Your task to perform on an android device: Empty the shopping cart on amazon.com. Add "razer nari" to the cart on amazon.com, then select checkout. Image 0: 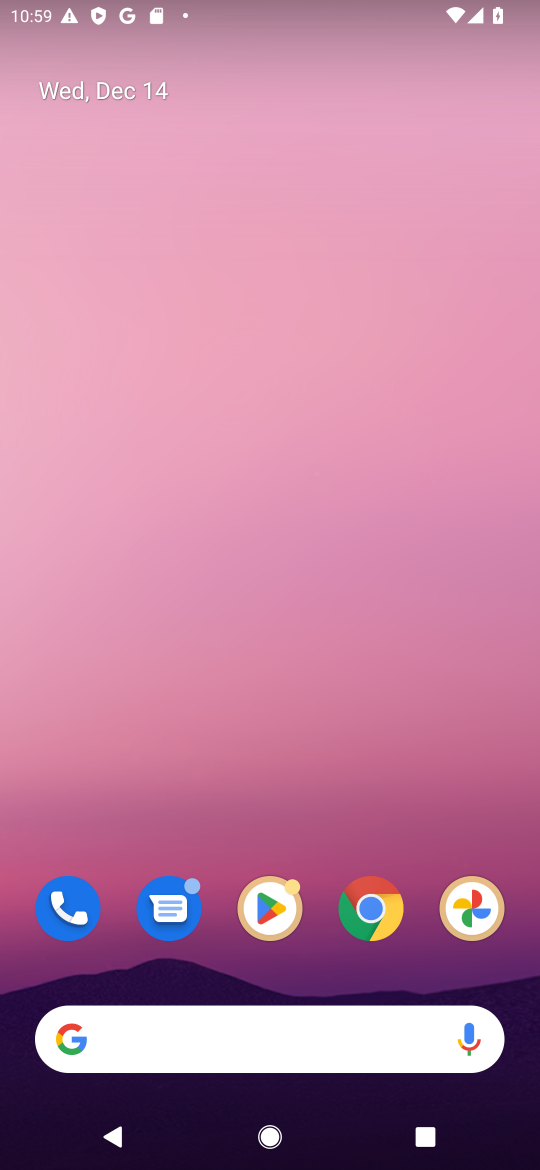
Step 0: click (390, 915)
Your task to perform on an android device: Empty the shopping cart on amazon.com. Add "razer nari" to the cart on amazon.com, then select checkout. Image 1: 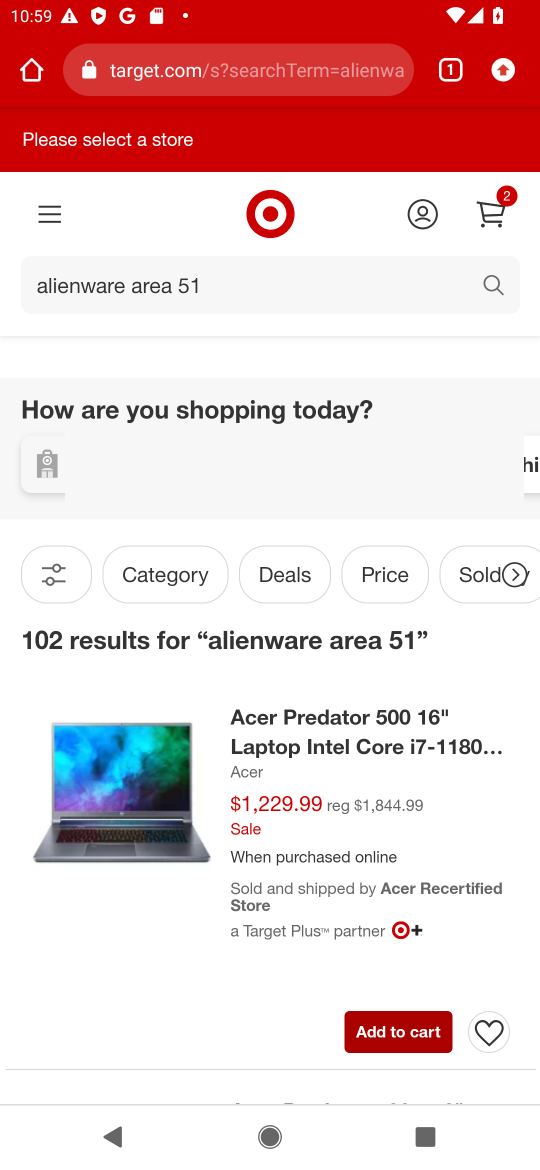
Step 1: click (283, 77)
Your task to perform on an android device: Empty the shopping cart on amazon.com. Add "razer nari" to the cart on amazon.com, then select checkout. Image 2: 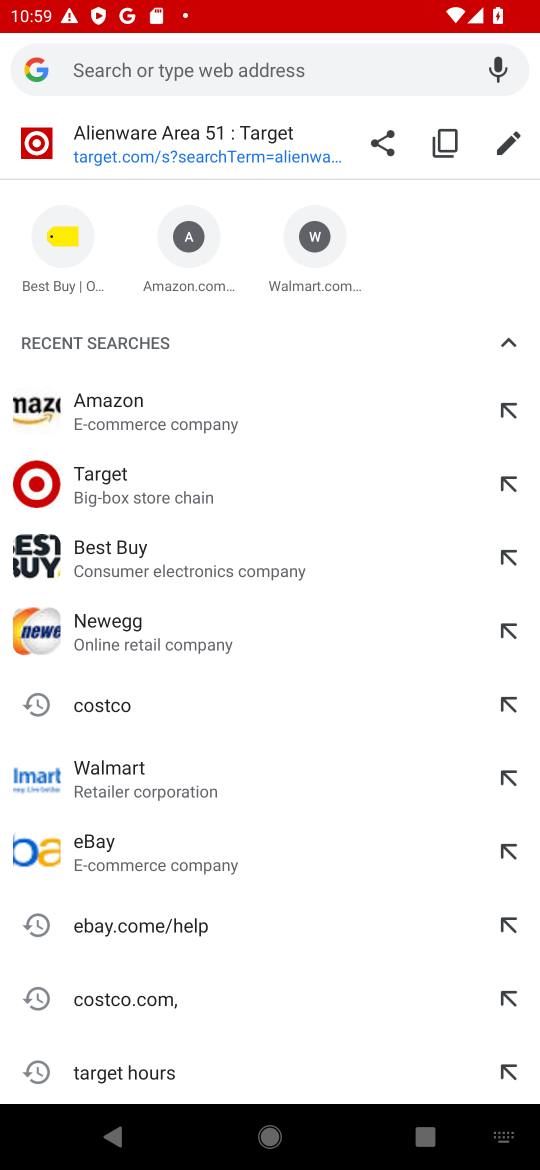
Step 2: type "amazone"
Your task to perform on an android device: Empty the shopping cart on amazon.com. Add "razer nari" to the cart on amazon.com, then select checkout. Image 3: 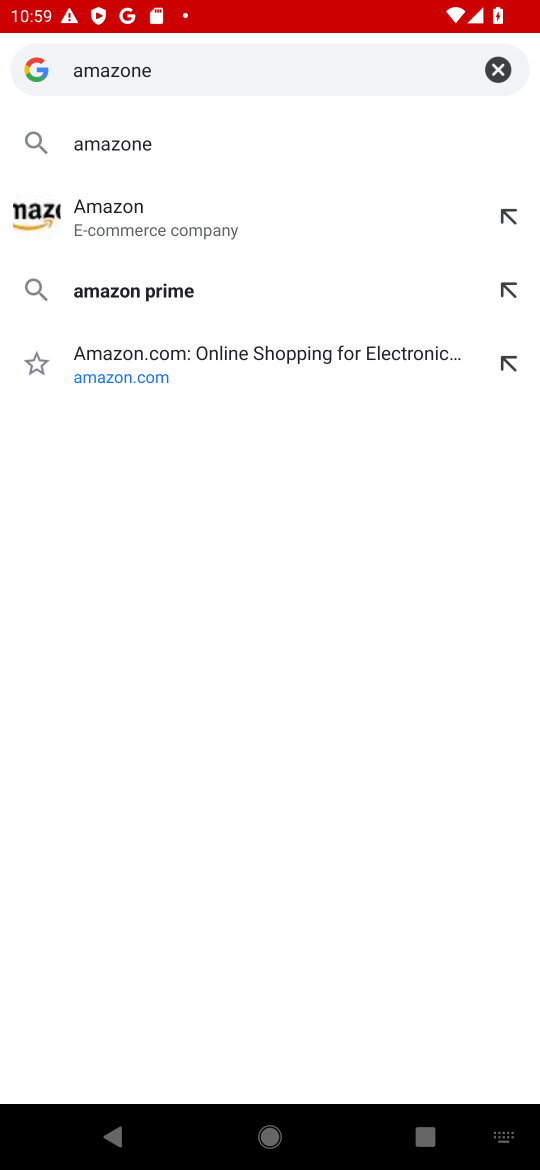
Step 3: click (120, 213)
Your task to perform on an android device: Empty the shopping cart on amazon.com. Add "razer nari" to the cart on amazon.com, then select checkout. Image 4: 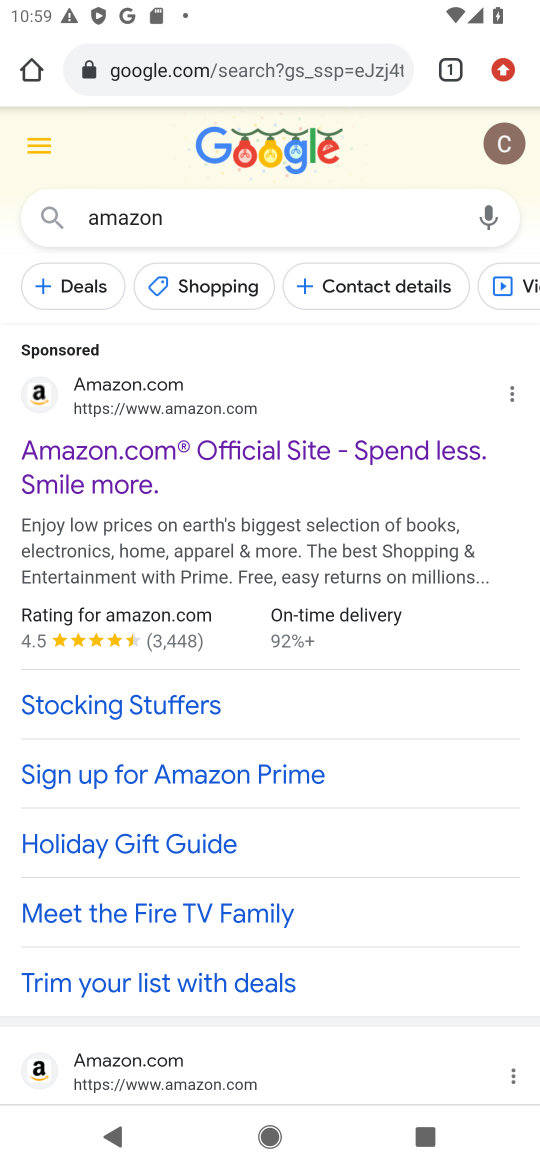
Step 4: click (80, 470)
Your task to perform on an android device: Empty the shopping cart on amazon.com. Add "razer nari" to the cart on amazon.com, then select checkout. Image 5: 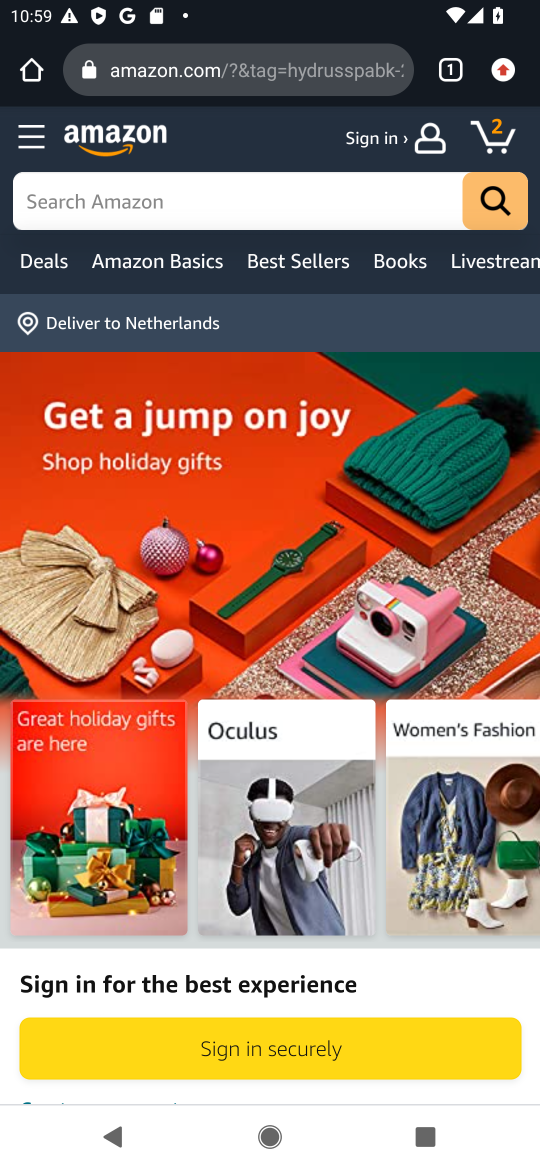
Step 5: click (171, 190)
Your task to perform on an android device: Empty the shopping cart on amazon.com. Add "razer nari" to the cart on amazon.com, then select checkout. Image 6: 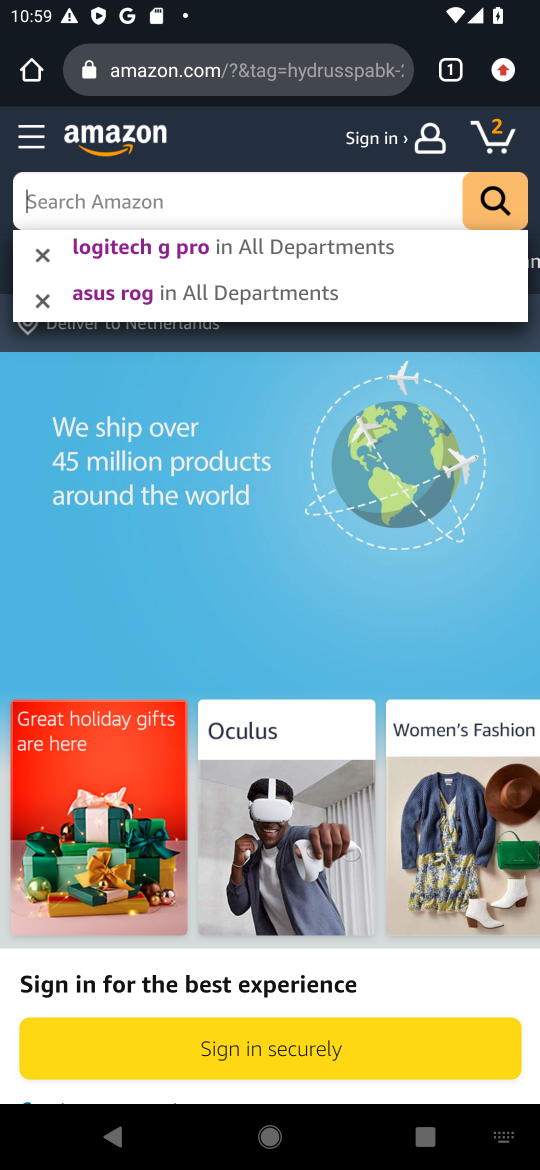
Step 6: type "razer nari"
Your task to perform on an android device: Empty the shopping cart on amazon.com. Add "razer nari" to the cart on amazon.com, then select checkout. Image 7: 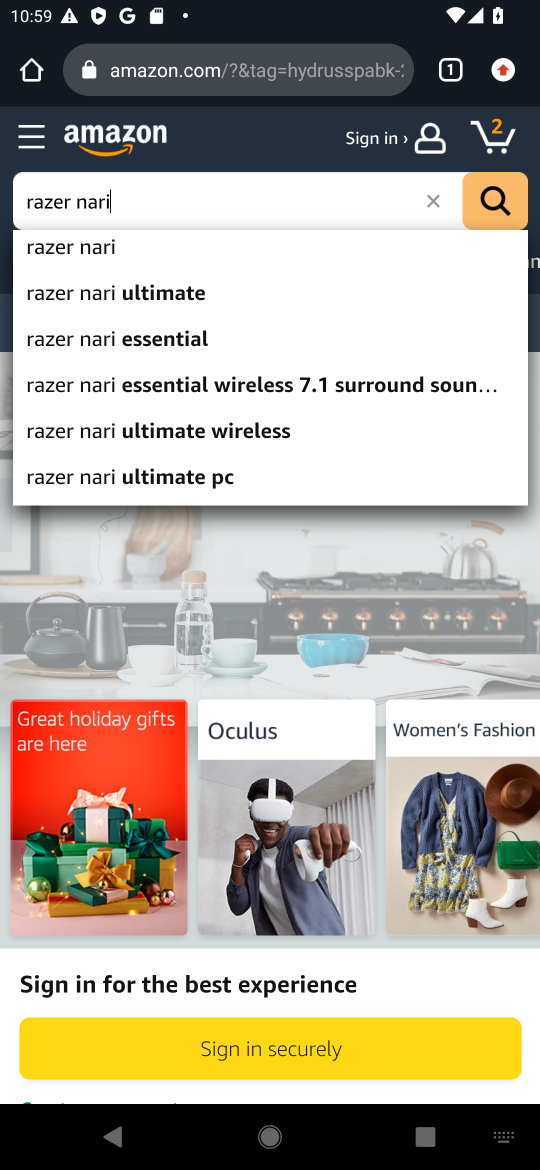
Step 7: click (480, 220)
Your task to perform on an android device: Empty the shopping cart on amazon.com. Add "razer nari" to the cart on amazon.com, then select checkout. Image 8: 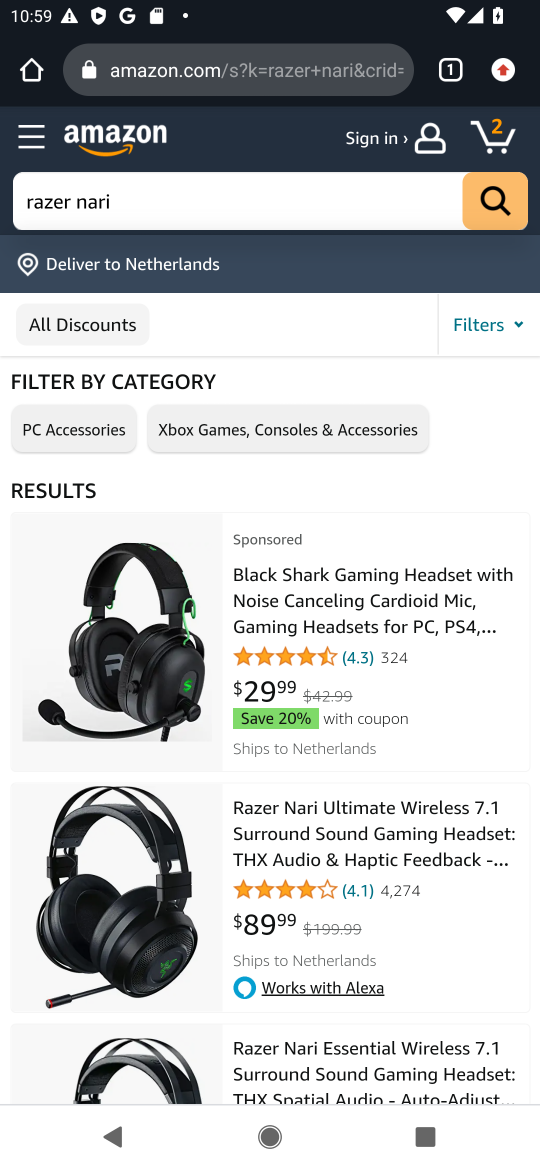
Step 8: click (389, 609)
Your task to perform on an android device: Empty the shopping cart on amazon.com. Add "razer nari" to the cart on amazon.com, then select checkout. Image 9: 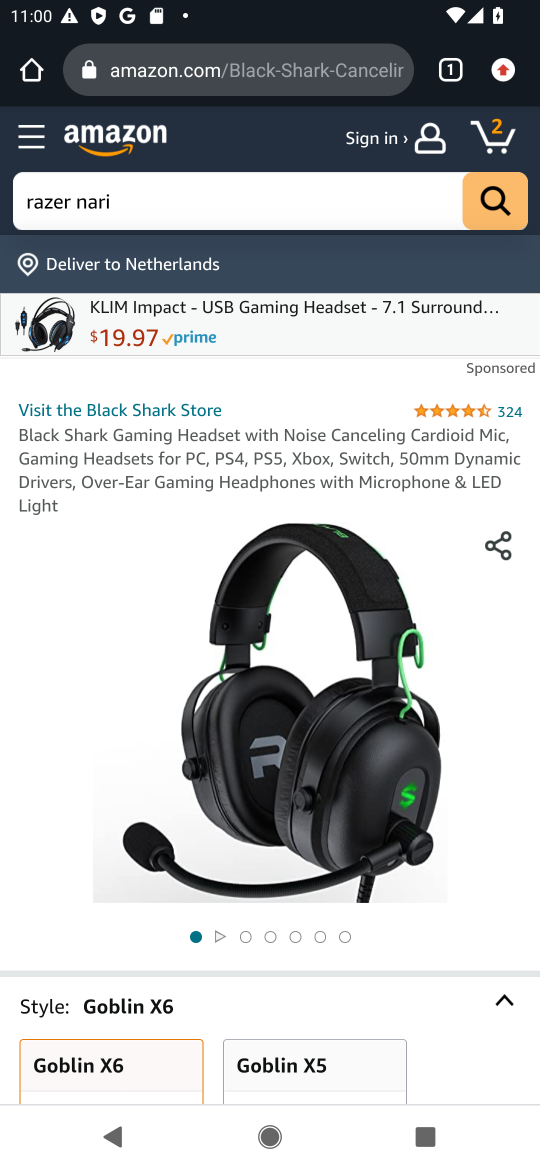
Step 9: drag from (286, 788) to (268, 301)
Your task to perform on an android device: Empty the shopping cart on amazon.com. Add "razer nari" to the cart on amazon.com, then select checkout. Image 10: 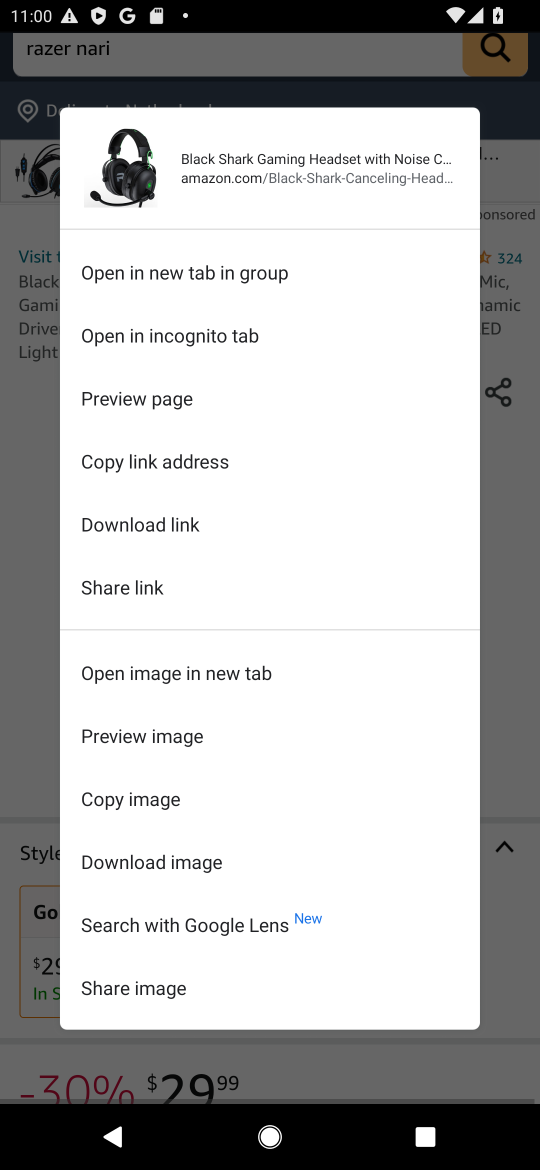
Step 10: click (529, 618)
Your task to perform on an android device: Empty the shopping cart on amazon.com. Add "razer nari" to the cart on amazon.com, then select checkout. Image 11: 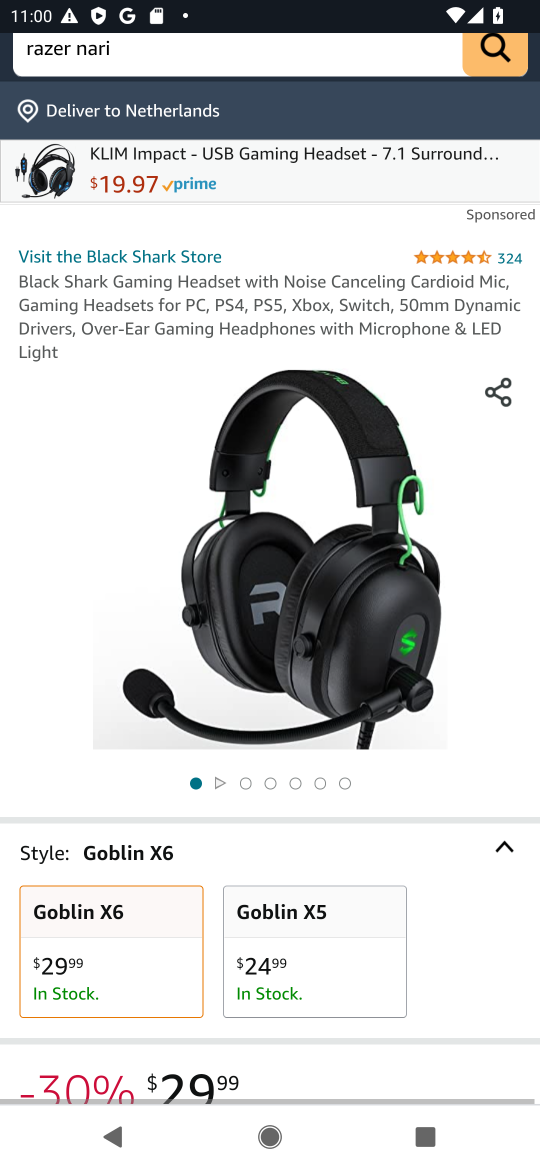
Step 11: drag from (411, 982) to (313, 341)
Your task to perform on an android device: Empty the shopping cart on amazon.com. Add "razer nari" to the cart on amazon.com, then select checkout. Image 12: 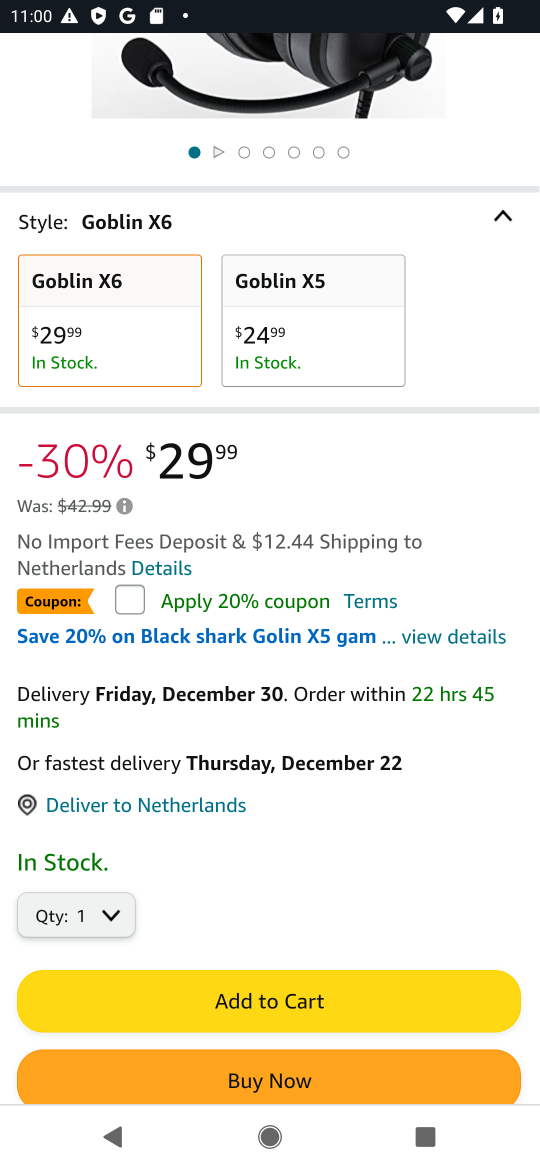
Step 12: click (288, 1021)
Your task to perform on an android device: Empty the shopping cart on amazon.com. Add "razer nari" to the cart on amazon.com, then select checkout. Image 13: 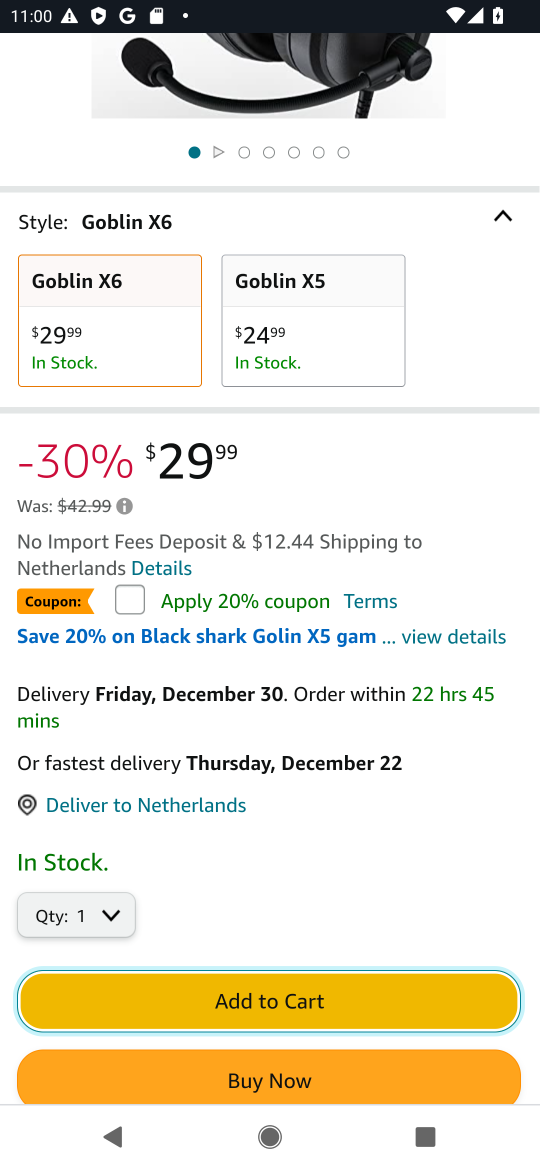
Step 13: task complete